Your task to perform on an android device: search for starred emails in the gmail app Image 0: 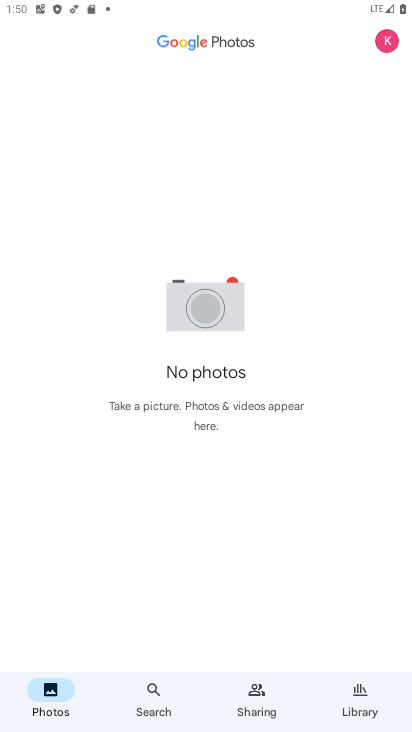
Step 0: press home button
Your task to perform on an android device: search for starred emails in the gmail app Image 1: 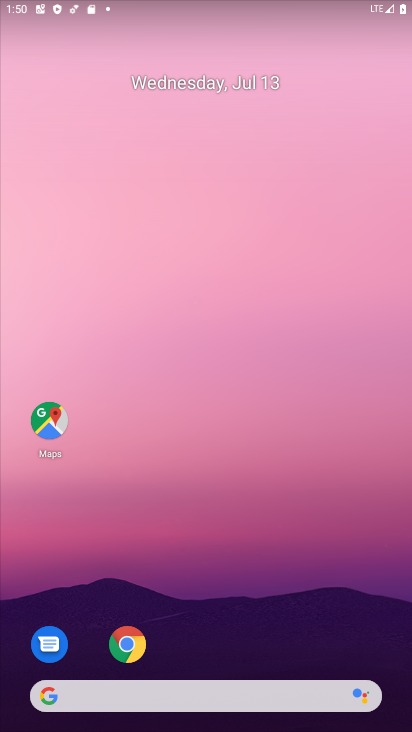
Step 1: drag from (331, 530) to (301, 125)
Your task to perform on an android device: search for starred emails in the gmail app Image 2: 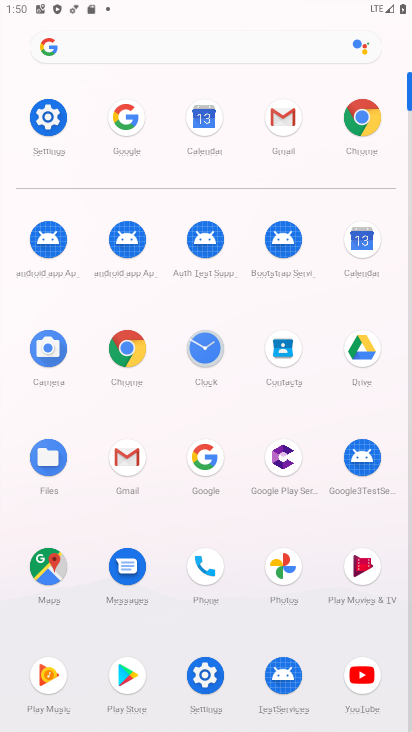
Step 2: click (290, 115)
Your task to perform on an android device: search for starred emails in the gmail app Image 3: 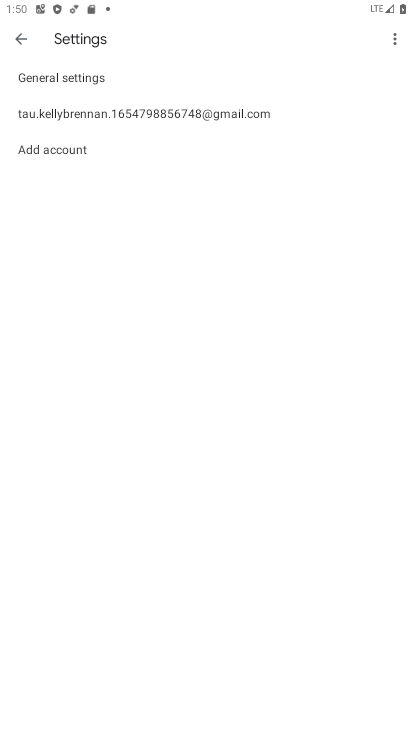
Step 3: click (25, 43)
Your task to perform on an android device: search for starred emails in the gmail app Image 4: 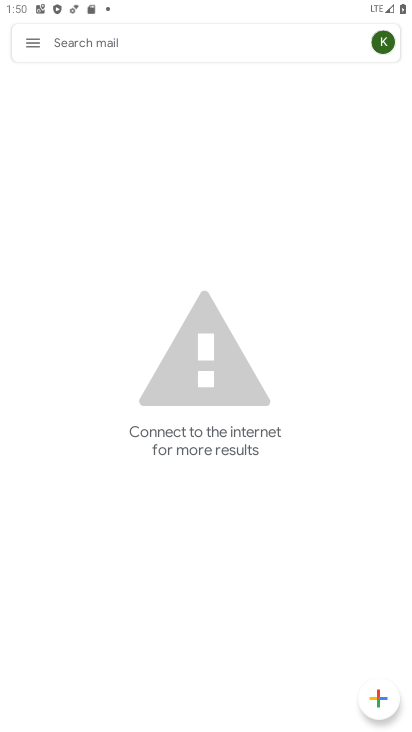
Step 4: click (25, 43)
Your task to perform on an android device: search for starred emails in the gmail app Image 5: 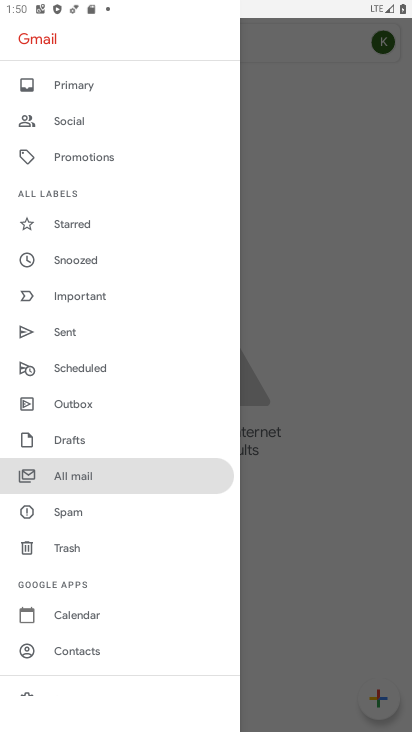
Step 5: click (83, 219)
Your task to perform on an android device: search for starred emails in the gmail app Image 6: 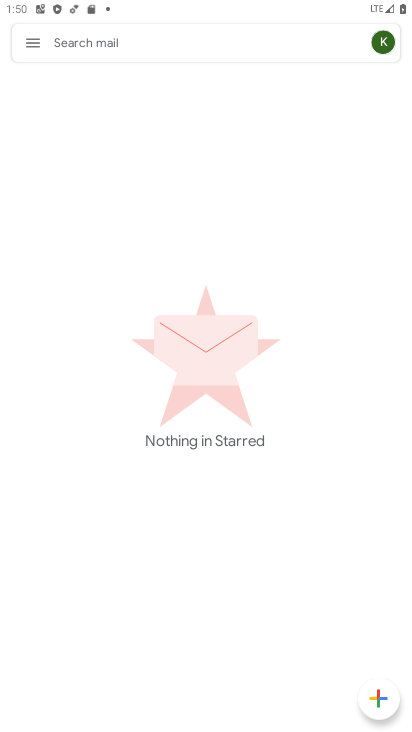
Step 6: task complete